Your task to perform on an android device: Open Wikipedia Image 0: 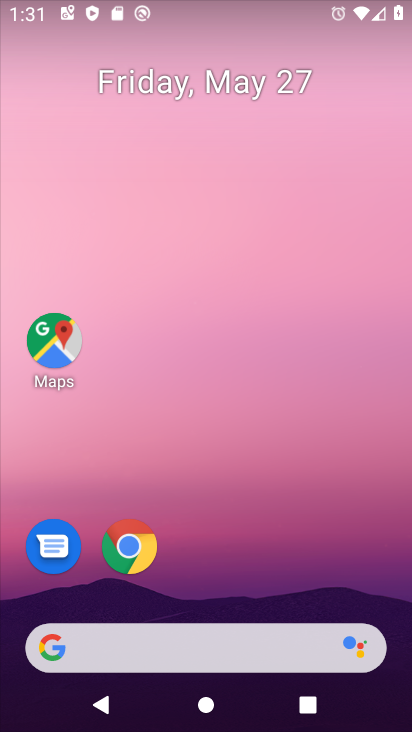
Step 0: press home button
Your task to perform on an android device: Open Wikipedia Image 1: 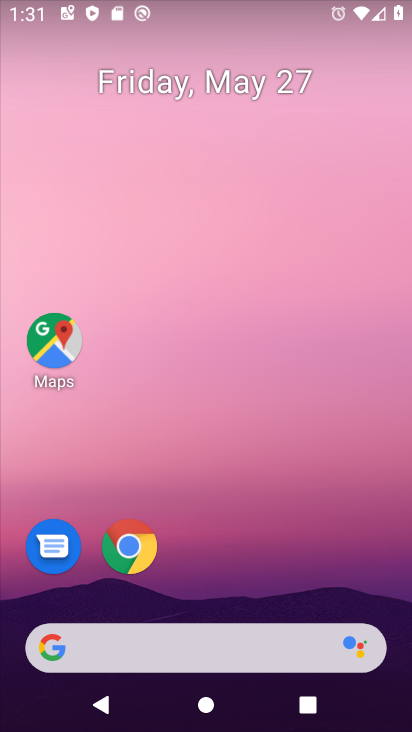
Step 1: drag from (232, 669) to (332, 108)
Your task to perform on an android device: Open Wikipedia Image 2: 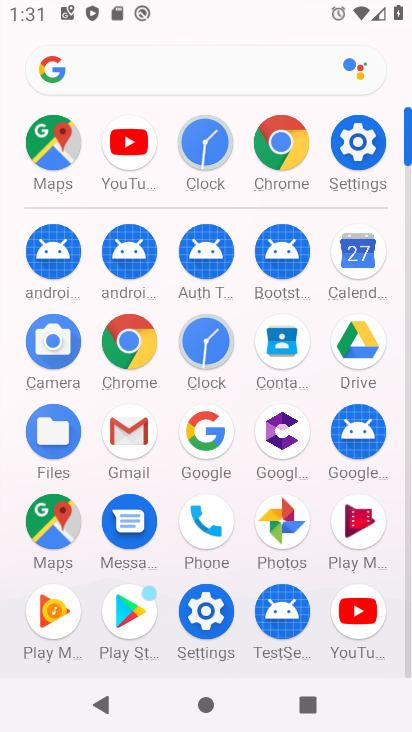
Step 2: click (294, 153)
Your task to perform on an android device: Open Wikipedia Image 3: 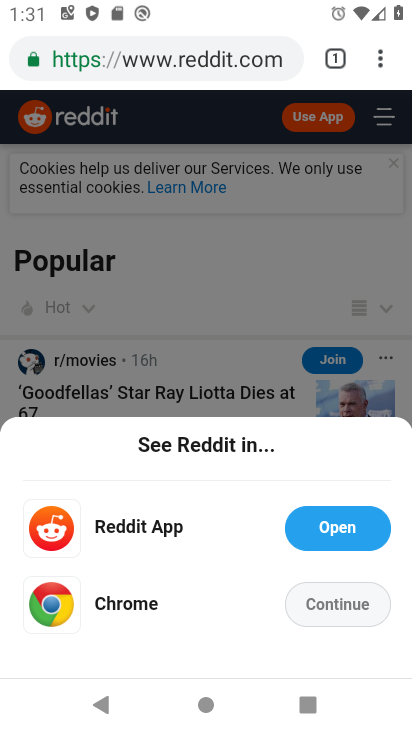
Step 3: click (337, 55)
Your task to perform on an android device: Open Wikipedia Image 4: 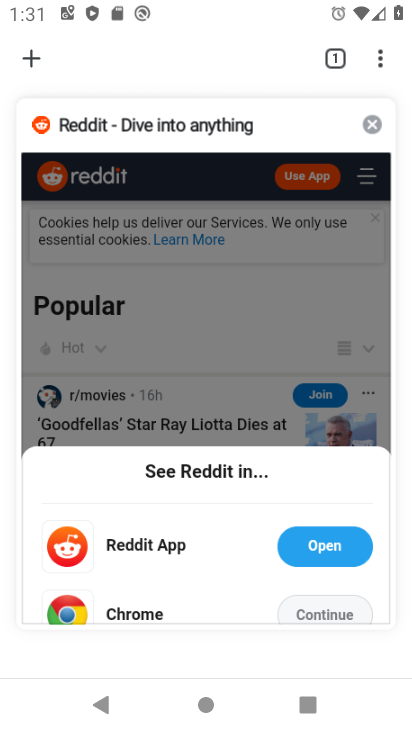
Step 4: click (40, 58)
Your task to perform on an android device: Open Wikipedia Image 5: 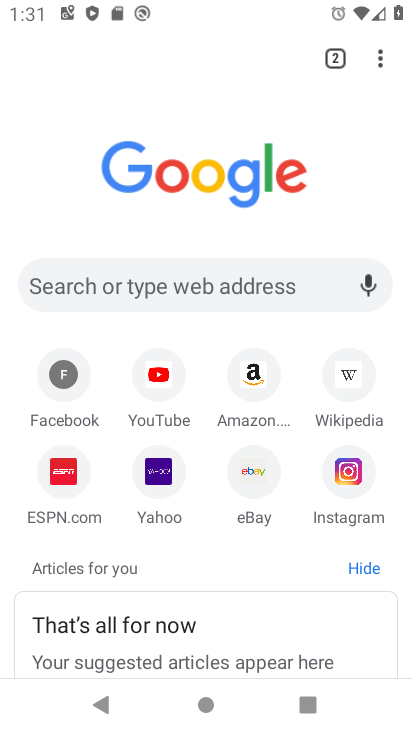
Step 5: click (336, 374)
Your task to perform on an android device: Open Wikipedia Image 6: 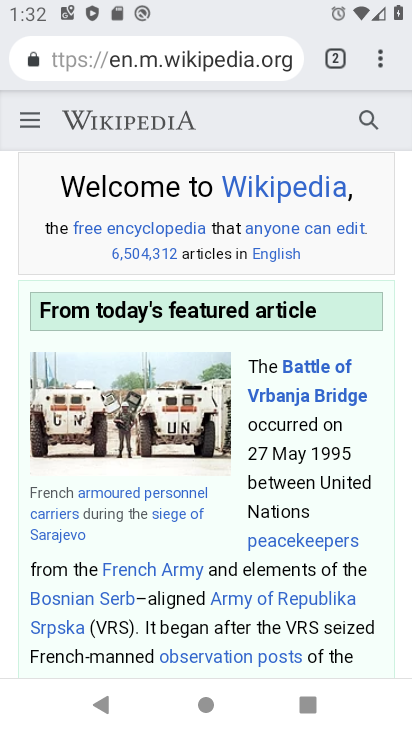
Step 6: task complete